Your task to perform on an android device: Play the last video I watched on Youtube Image 0: 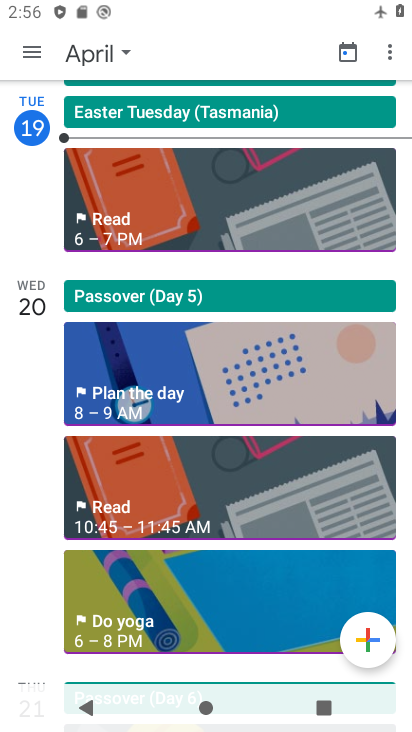
Step 0: press home button
Your task to perform on an android device: Play the last video I watched on Youtube Image 1: 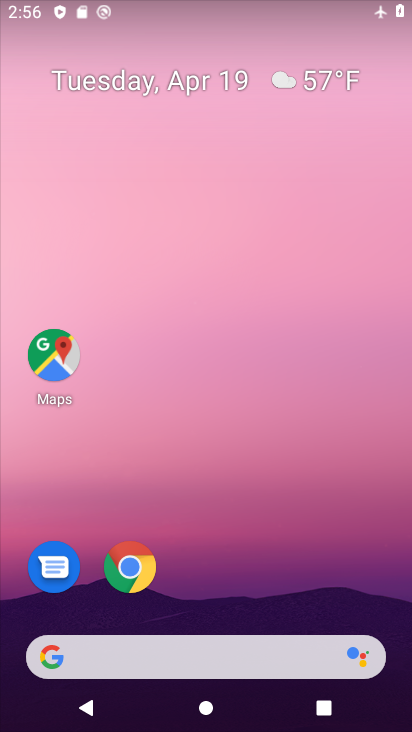
Step 1: drag from (372, 495) to (366, 158)
Your task to perform on an android device: Play the last video I watched on Youtube Image 2: 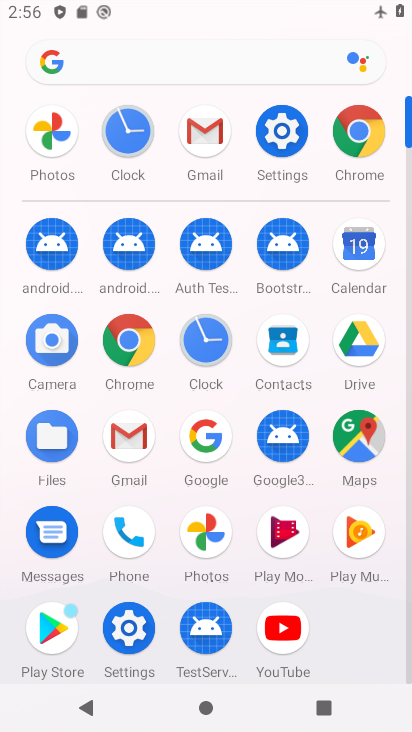
Step 2: click (286, 635)
Your task to perform on an android device: Play the last video I watched on Youtube Image 3: 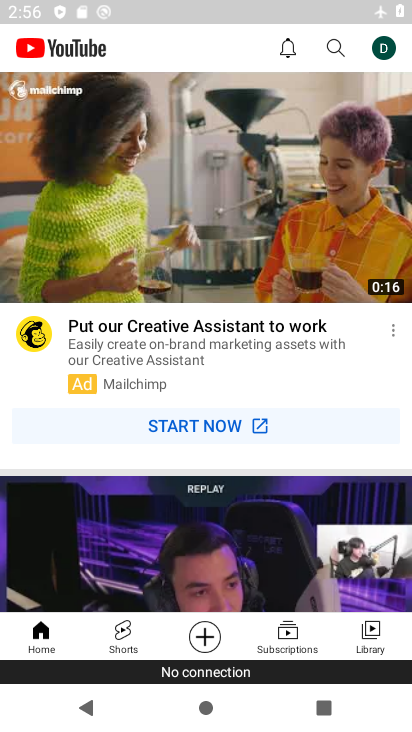
Step 3: task complete